Your task to perform on an android device: delete the emails in spam in the gmail app Image 0: 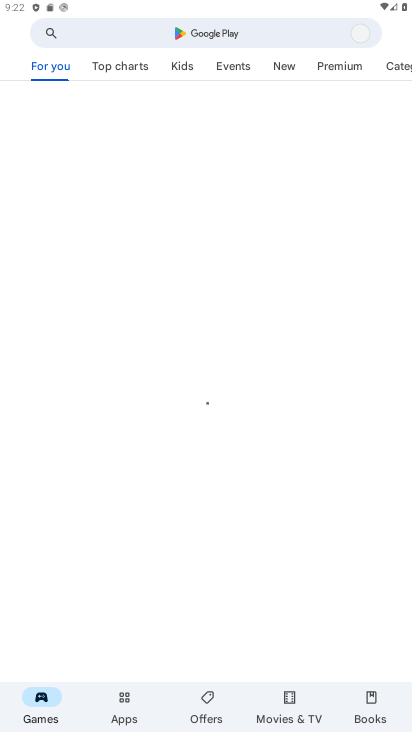
Step 0: press home button
Your task to perform on an android device: delete the emails in spam in the gmail app Image 1: 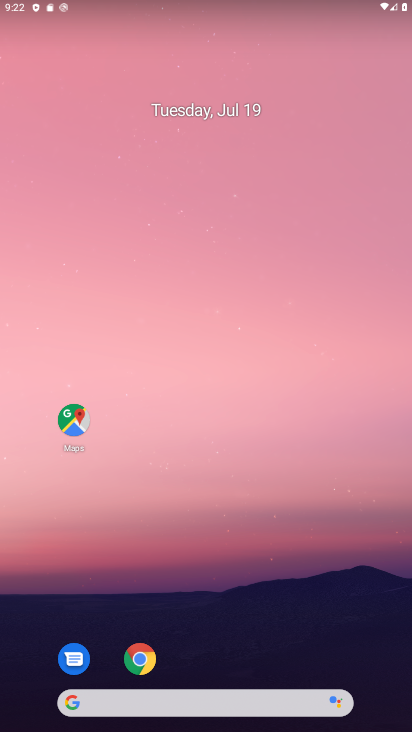
Step 1: drag from (288, 636) to (251, 127)
Your task to perform on an android device: delete the emails in spam in the gmail app Image 2: 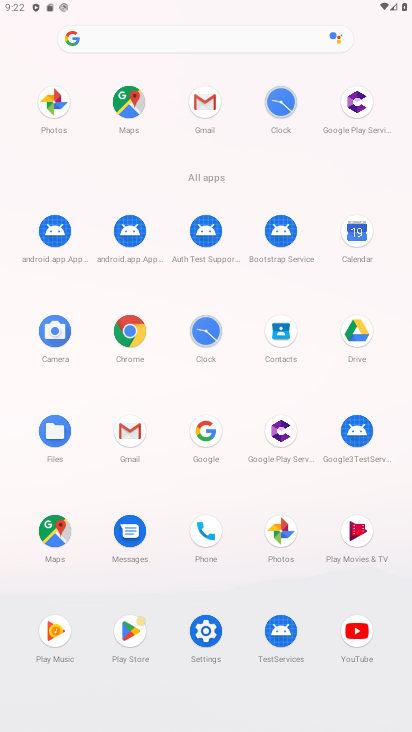
Step 2: click (202, 100)
Your task to perform on an android device: delete the emails in spam in the gmail app Image 3: 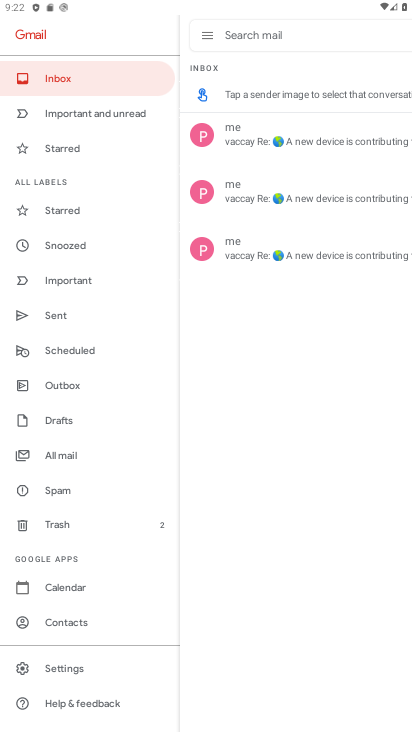
Step 3: click (95, 494)
Your task to perform on an android device: delete the emails in spam in the gmail app Image 4: 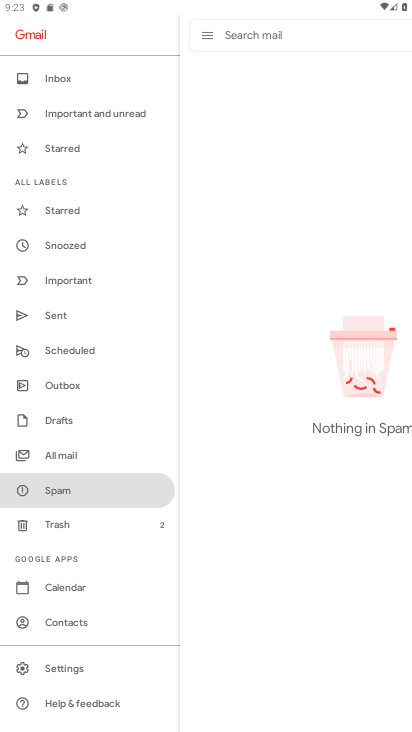
Step 4: task complete